Your task to perform on an android device: Open Wikipedia Image 0: 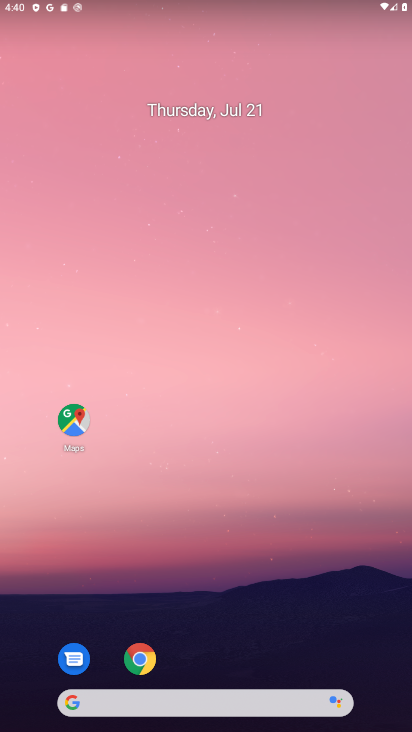
Step 0: click (142, 663)
Your task to perform on an android device: Open Wikipedia Image 1: 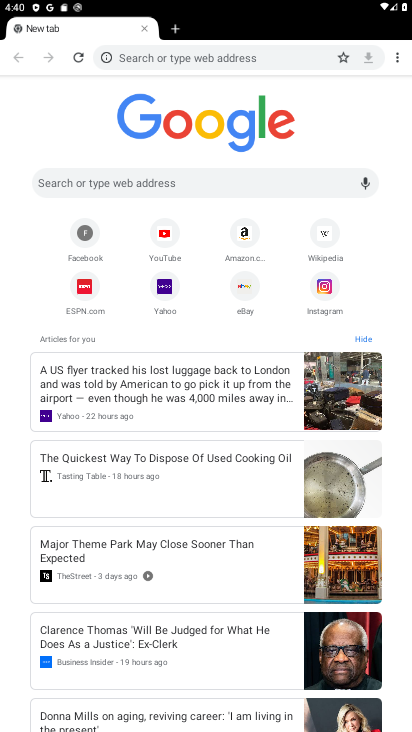
Step 1: click (322, 234)
Your task to perform on an android device: Open Wikipedia Image 2: 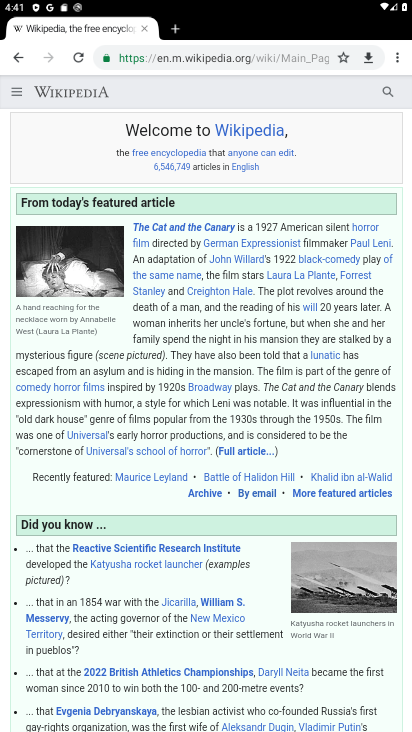
Step 2: task complete